Your task to perform on an android device: make emails show in primary in the gmail app Image 0: 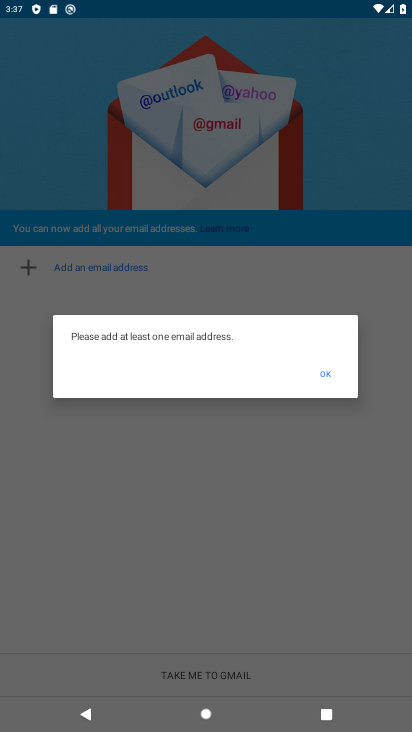
Step 0: task impossible